Your task to perform on an android device: toggle wifi Image 0: 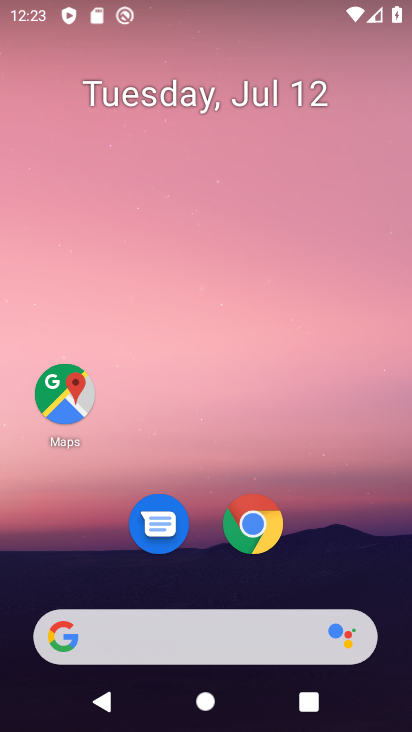
Step 0: drag from (321, 546) to (273, 1)
Your task to perform on an android device: toggle wifi Image 1: 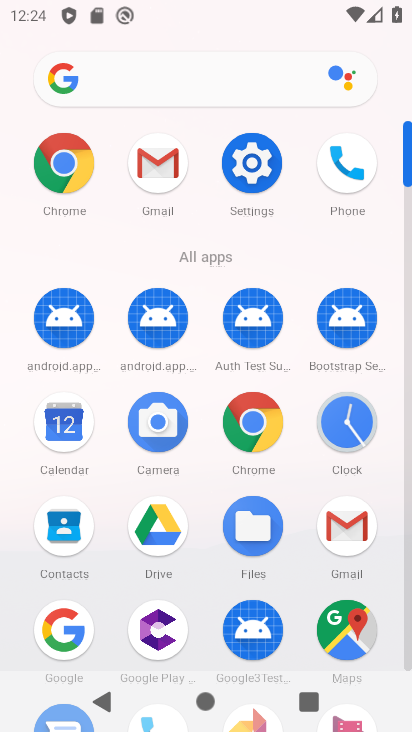
Step 1: click (262, 157)
Your task to perform on an android device: toggle wifi Image 2: 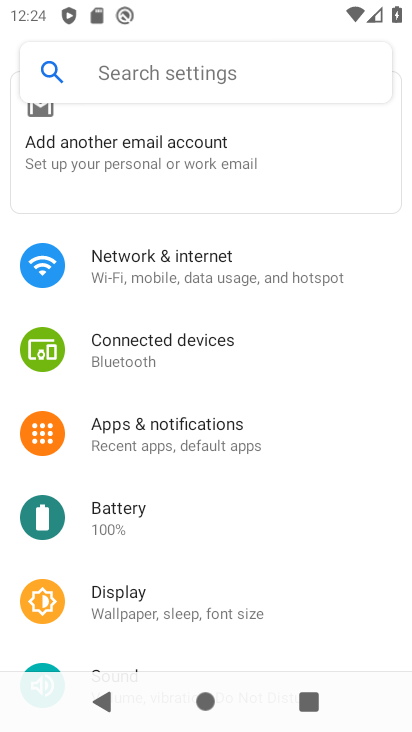
Step 2: click (228, 259)
Your task to perform on an android device: toggle wifi Image 3: 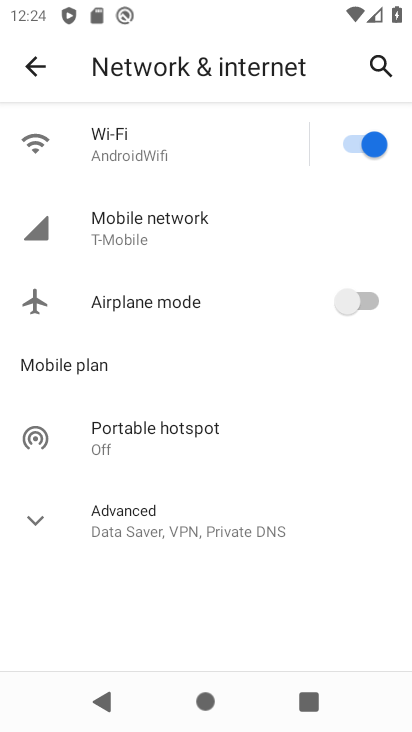
Step 3: click (358, 137)
Your task to perform on an android device: toggle wifi Image 4: 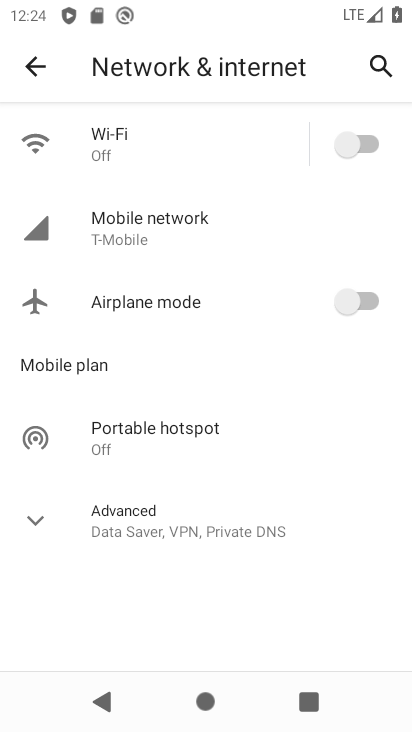
Step 4: task complete